Your task to perform on an android device: turn on improve location accuracy Image 0: 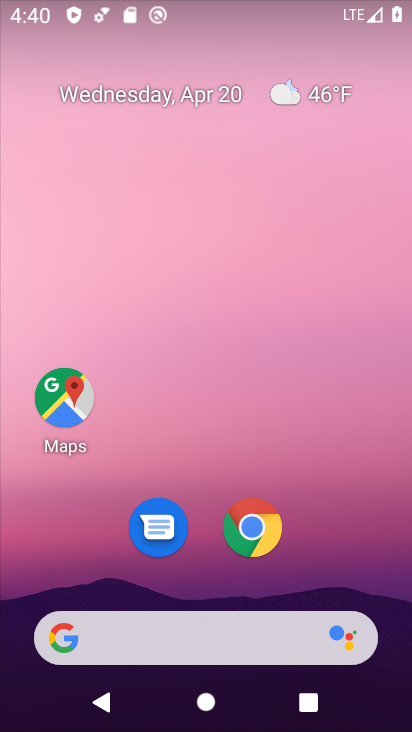
Step 0: drag from (336, 441) to (308, 16)
Your task to perform on an android device: turn on improve location accuracy Image 1: 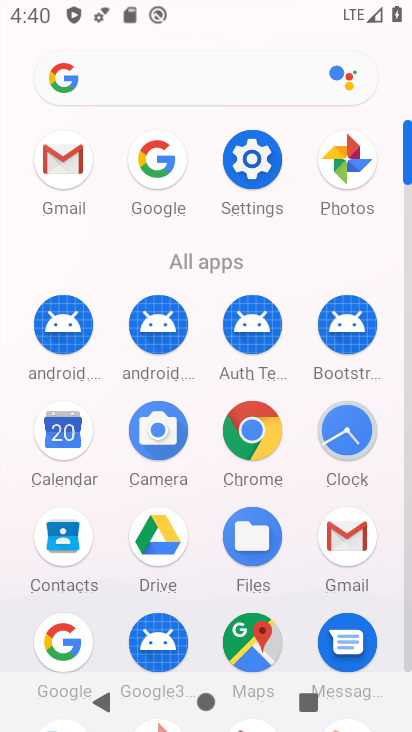
Step 1: click (255, 155)
Your task to perform on an android device: turn on improve location accuracy Image 2: 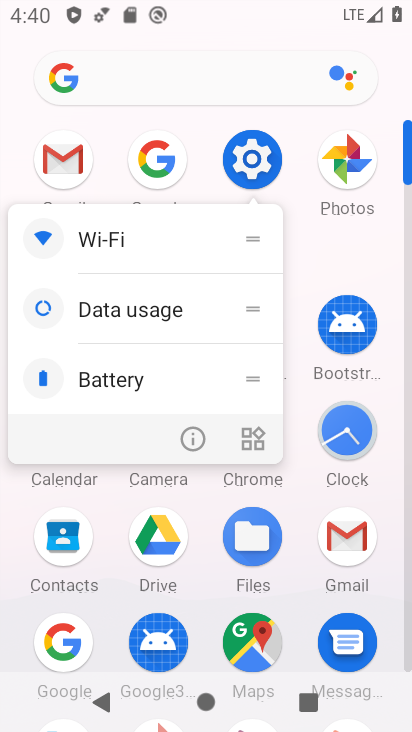
Step 2: click (251, 155)
Your task to perform on an android device: turn on improve location accuracy Image 3: 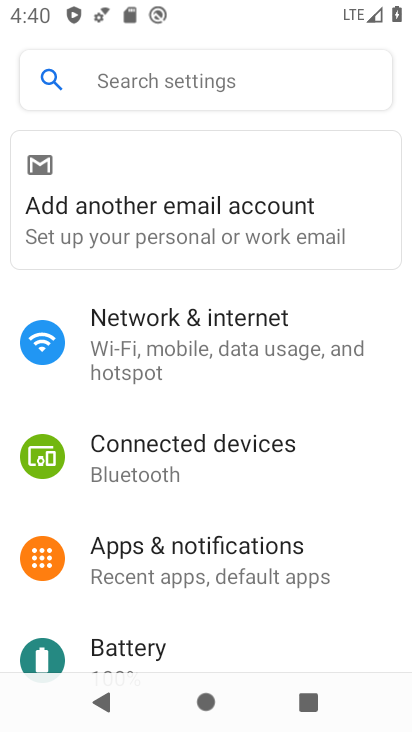
Step 3: drag from (241, 612) to (210, 222)
Your task to perform on an android device: turn on improve location accuracy Image 4: 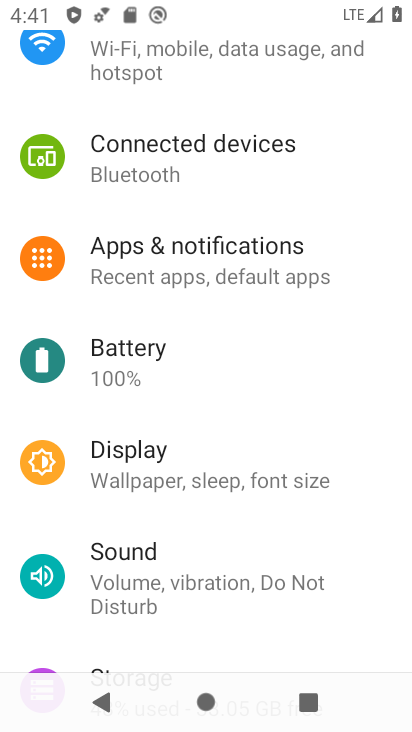
Step 4: drag from (190, 605) to (201, 245)
Your task to perform on an android device: turn on improve location accuracy Image 5: 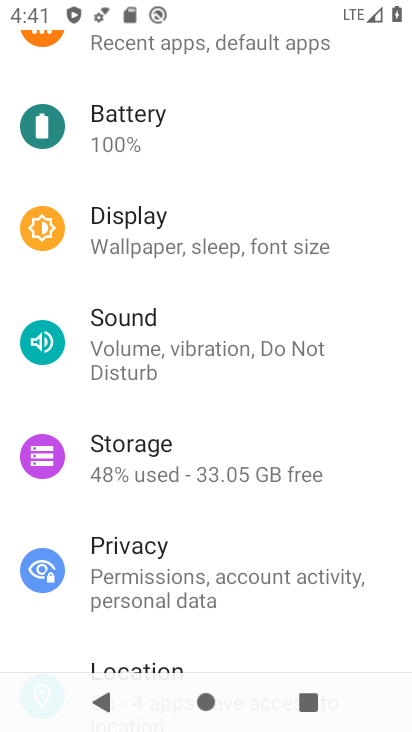
Step 5: drag from (232, 460) to (231, 291)
Your task to perform on an android device: turn on improve location accuracy Image 6: 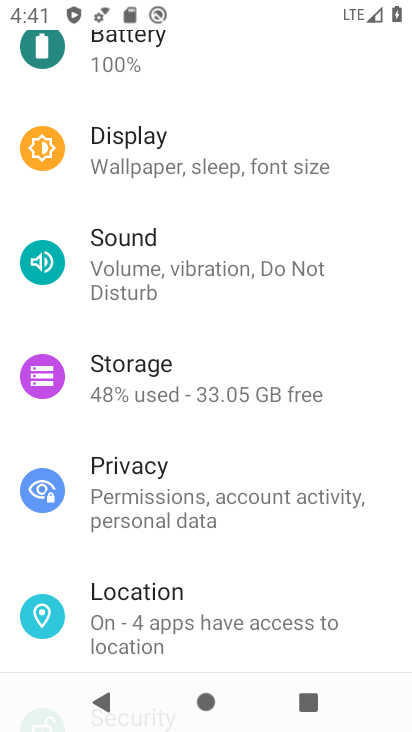
Step 6: click (177, 604)
Your task to perform on an android device: turn on improve location accuracy Image 7: 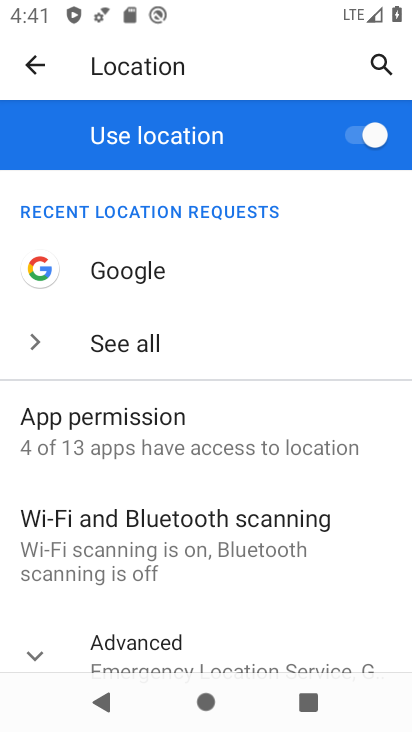
Step 7: drag from (235, 582) to (211, 284)
Your task to perform on an android device: turn on improve location accuracy Image 8: 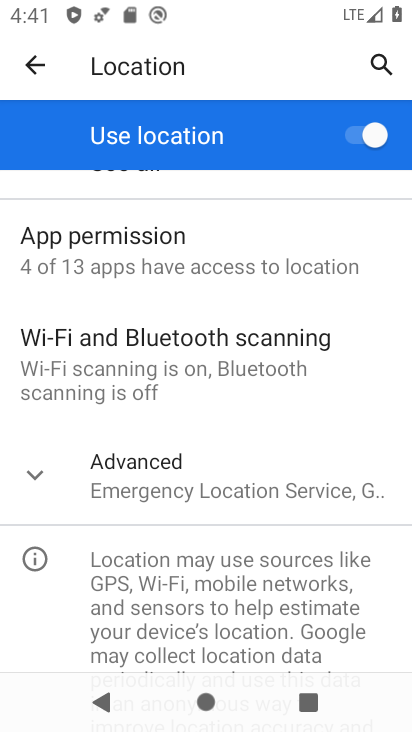
Step 8: click (190, 458)
Your task to perform on an android device: turn on improve location accuracy Image 9: 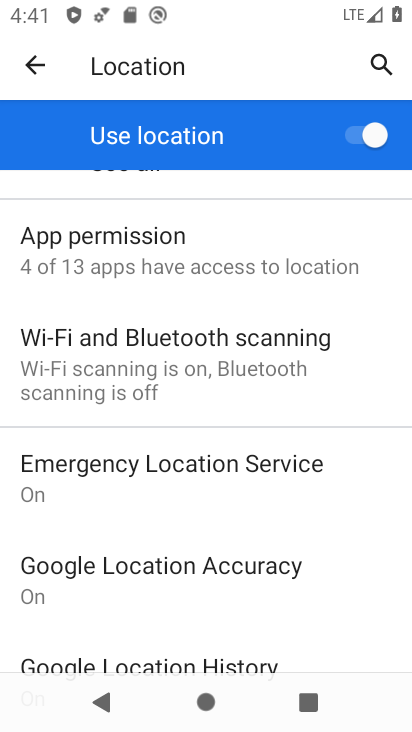
Step 9: task complete